Your task to perform on an android device: turn vacation reply on in the gmail app Image 0: 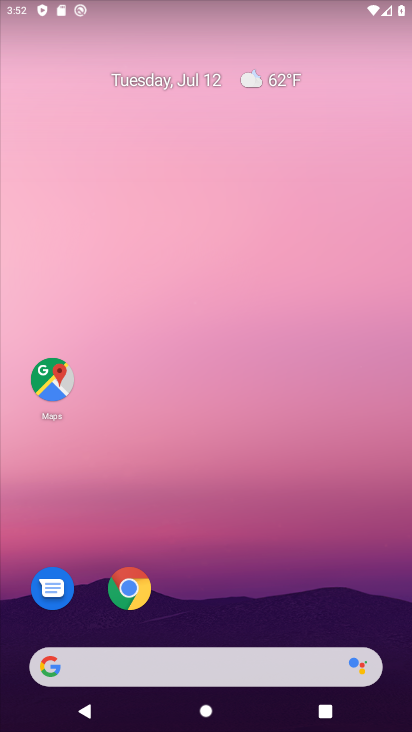
Step 0: drag from (336, 579) to (357, 89)
Your task to perform on an android device: turn vacation reply on in the gmail app Image 1: 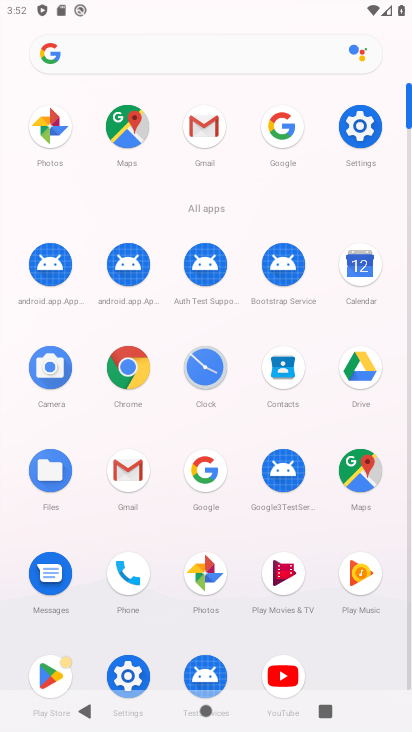
Step 1: click (219, 135)
Your task to perform on an android device: turn vacation reply on in the gmail app Image 2: 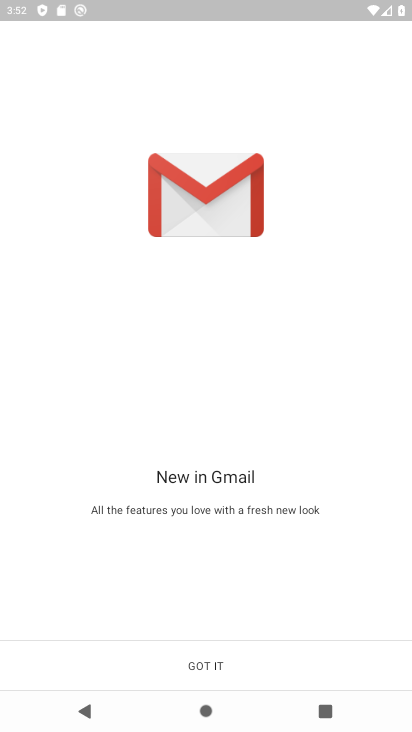
Step 2: click (217, 664)
Your task to perform on an android device: turn vacation reply on in the gmail app Image 3: 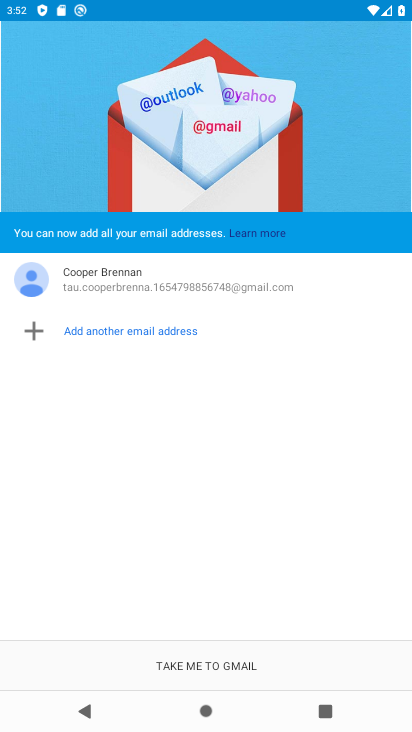
Step 3: click (258, 681)
Your task to perform on an android device: turn vacation reply on in the gmail app Image 4: 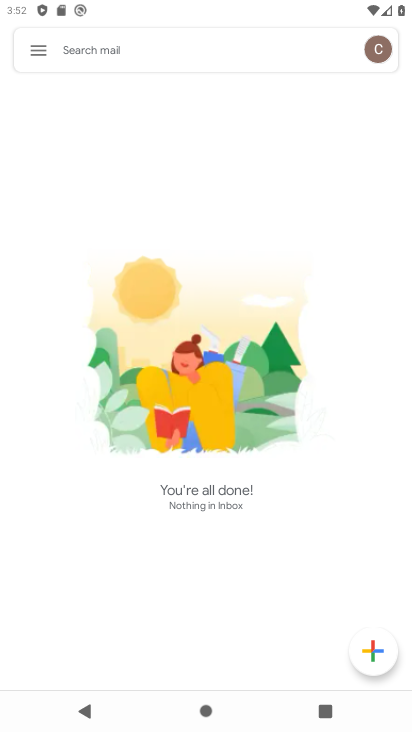
Step 4: click (47, 55)
Your task to perform on an android device: turn vacation reply on in the gmail app Image 5: 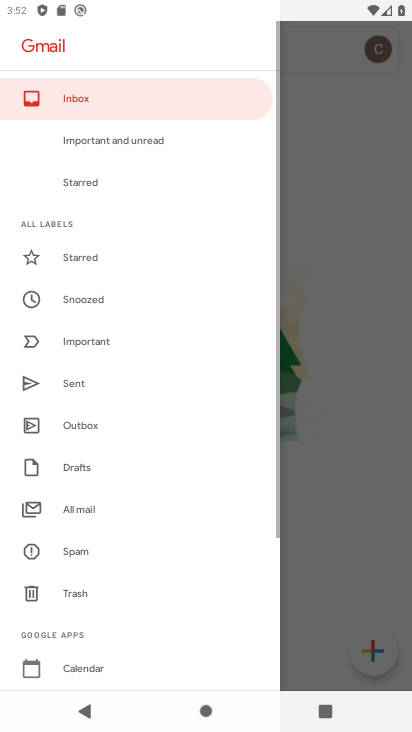
Step 5: drag from (196, 551) to (297, 148)
Your task to perform on an android device: turn vacation reply on in the gmail app Image 6: 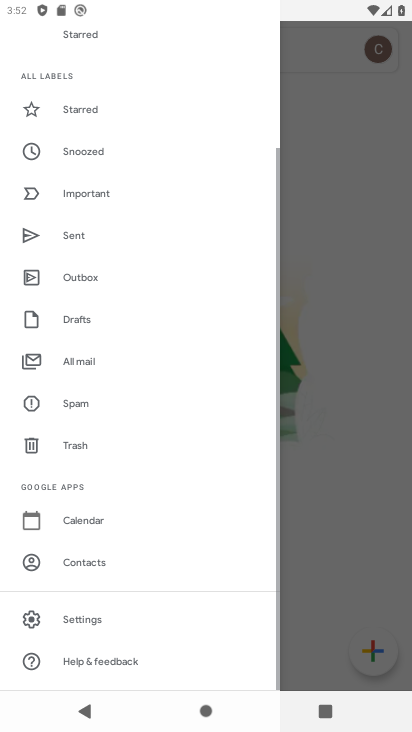
Step 6: click (161, 608)
Your task to perform on an android device: turn vacation reply on in the gmail app Image 7: 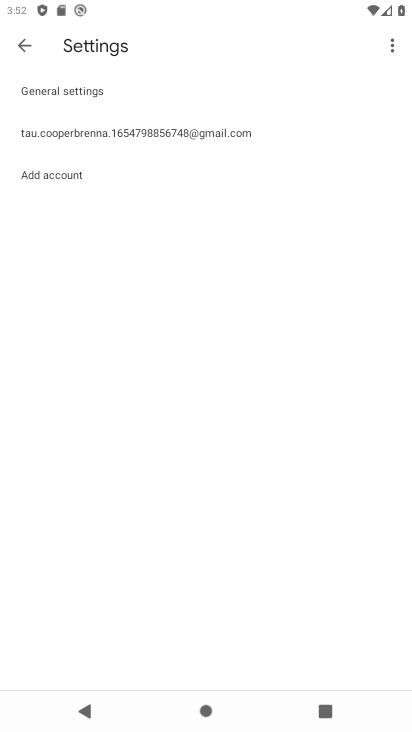
Step 7: click (175, 134)
Your task to perform on an android device: turn vacation reply on in the gmail app Image 8: 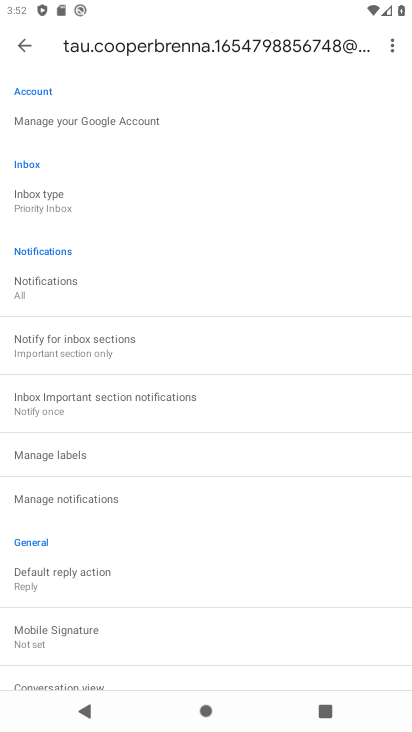
Step 8: drag from (131, 597) to (171, 239)
Your task to perform on an android device: turn vacation reply on in the gmail app Image 9: 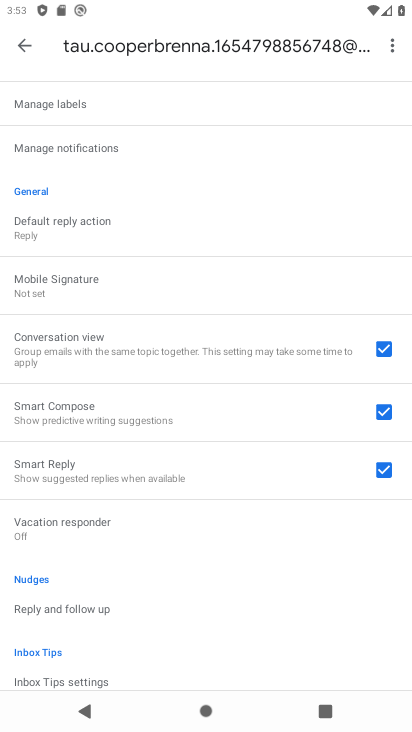
Step 9: click (93, 527)
Your task to perform on an android device: turn vacation reply on in the gmail app Image 10: 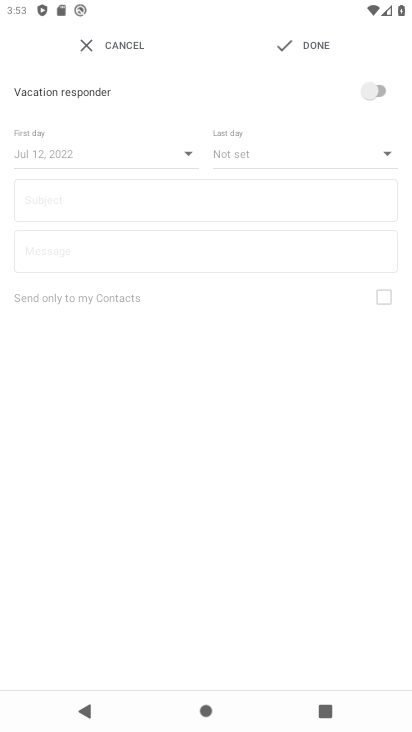
Step 10: click (367, 97)
Your task to perform on an android device: turn vacation reply on in the gmail app Image 11: 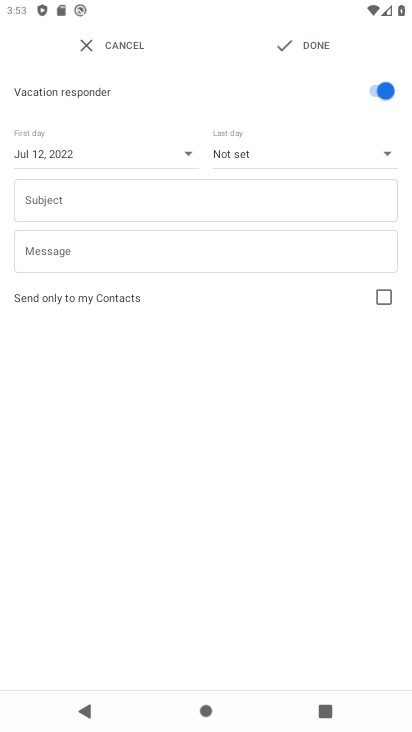
Step 11: task complete